Your task to perform on an android device: open app "Mercado Libre" (install if not already installed), go to login, and select forgot password Image 0: 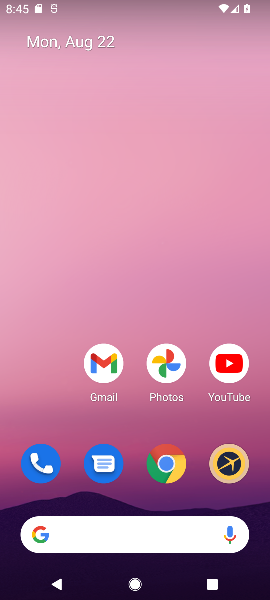
Step 0: drag from (268, 46) to (253, 18)
Your task to perform on an android device: open app "Mercado Libre" (install if not already installed), go to login, and select forgot password Image 1: 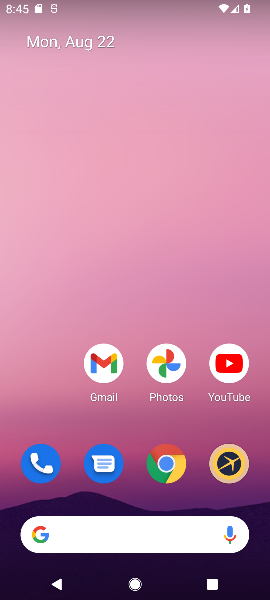
Step 1: drag from (146, 462) to (158, 1)
Your task to perform on an android device: open app "Mercado Libre" (install if not already installed), go to login, and select forgot password Image 2: 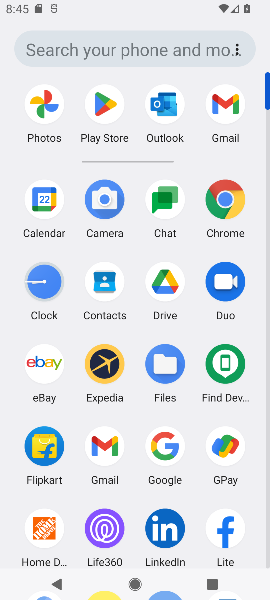
Step 2: click (108, 100)
Your task to perform on an android device: open app "Mercado Libre" (install if not already installed), go to login, and select forgot password Image 3: 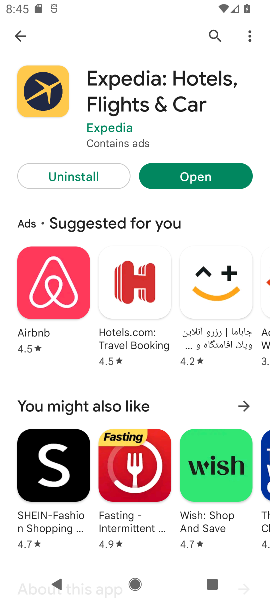
Step 3: click (205, 176)
Your task to perform on an android device: open app "Mercado Libre" (install if not already installed), go to login, and select forgot password Image 4: 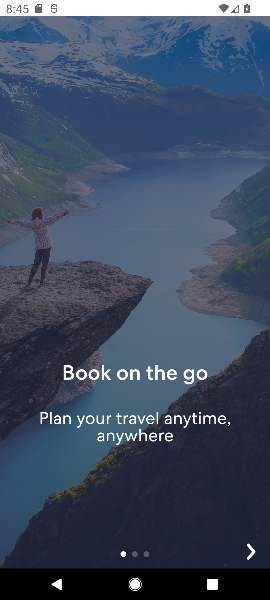
Step 4: task complete